Your task to perform on an android device: Open Wikipedia Image 0: 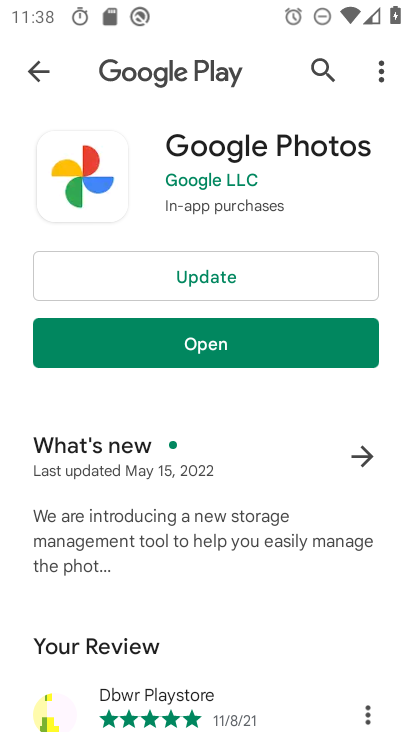
Step 0: press home button
Your task to perform on an android device: Open Wikipedia Image 1: 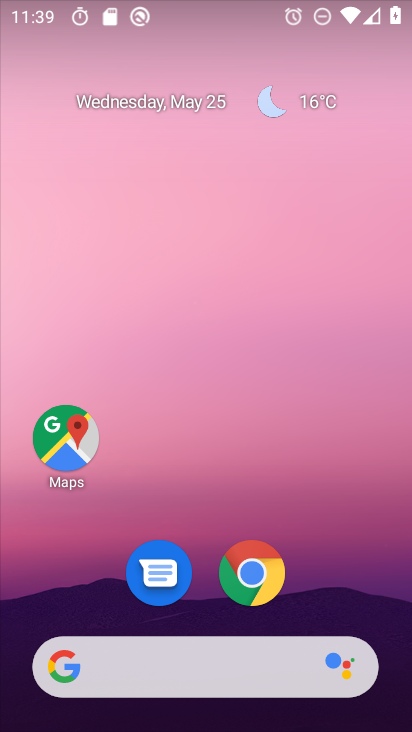
Step 1: click (253, 578)
Your task to perform on an android device: Open Wikipedia Image 2: 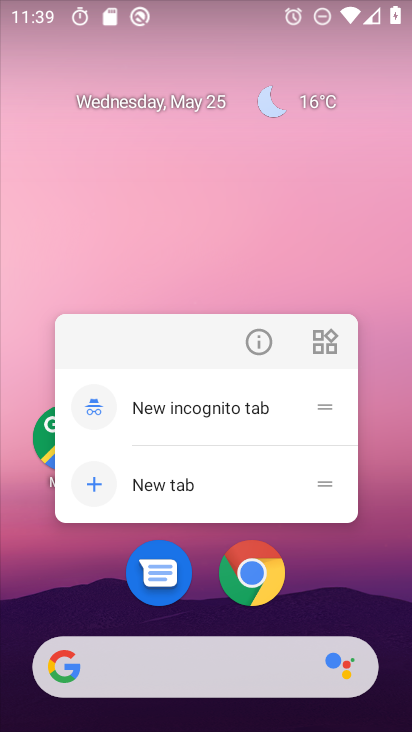
Step 2: click (253, 578)
Your task to perform on an android device: Open Wikipedia Image 3: 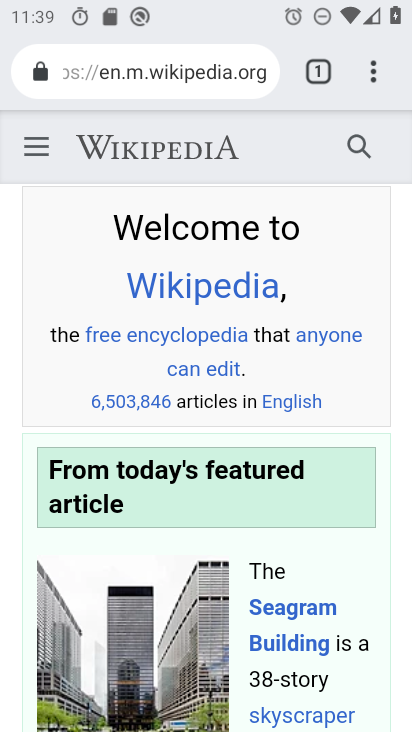
Step 3: task complete